Your task to perform on an android device: Search for the new nintendo switch on Walmart. Image 0: 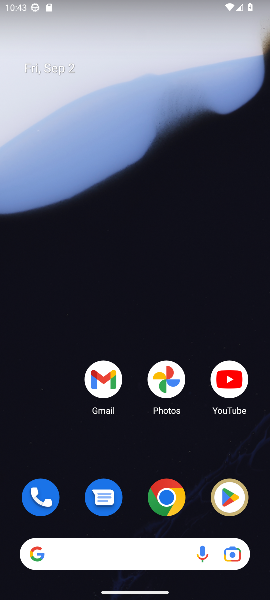
Step 0: drag from (121, 522) to (87, 9)
Your task to perform on an android device: Search for the new nintendo switch on Walmart. Image 1: 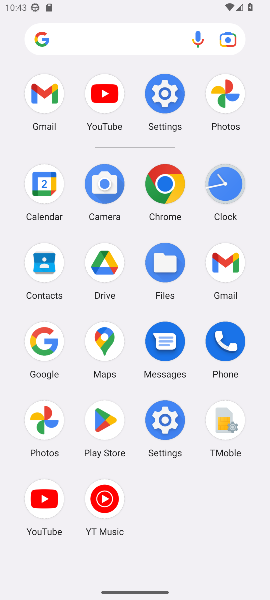
Step 1: click (48, 329)
Your task to perform on an android device: Search for the new nintendo switch on Walmart. Image 2: 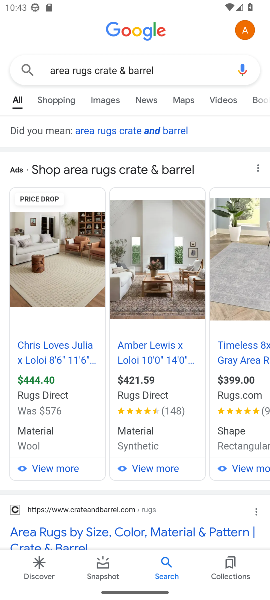
Step 2: click (167, 64)
Your task to perform on an android device: Search for the new nintendo switch on Walmart. Image 3: 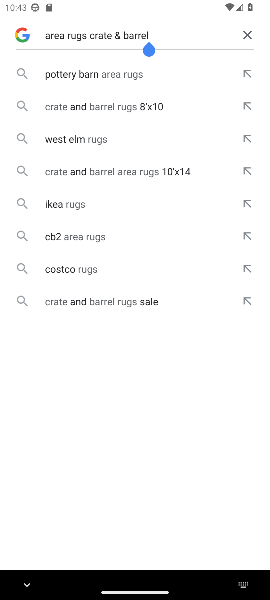
Step 3: click (246, 33)
Your task to perform on an android device: Search for the new nintendo switch on Walmart. Image 4: 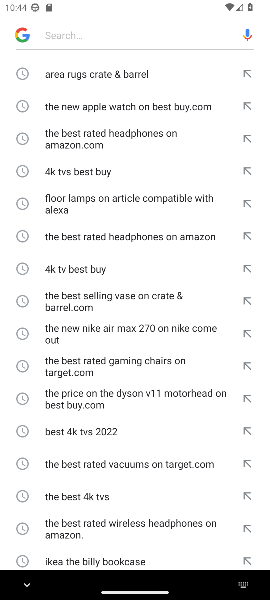
Step 4: type " the new nintendo switch on Walmart."
Your task to perform on an android device: Search for the new nintendo switch on Walmart. Image 5: 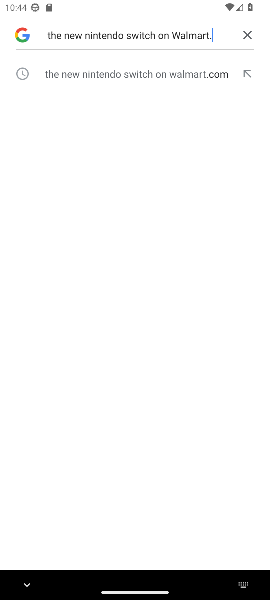
Step 5: click (167, 71)
Your task to perform on an android device: Search for the new nintendo switch on Walmart. Image 6: 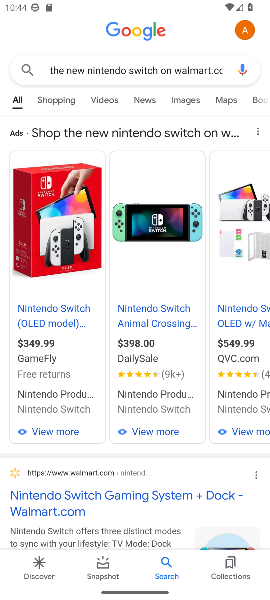
Step 6: task complete